Your task to perform on an android device: delete a single message in the gmail app Image 0: 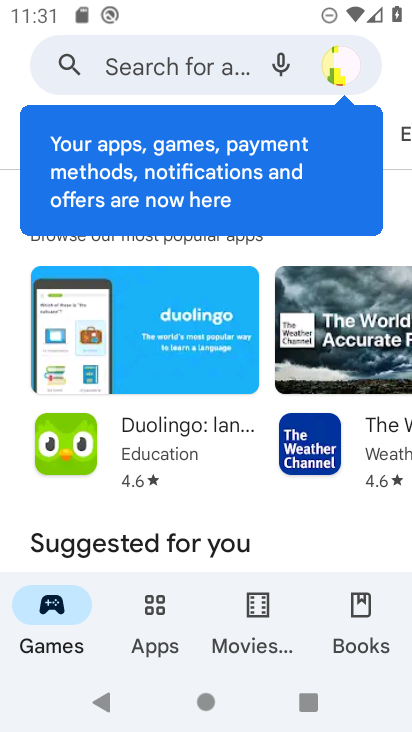
Step 0: press home button
Your task to perform on an android device: delete a single message in the gmail app Image 1: 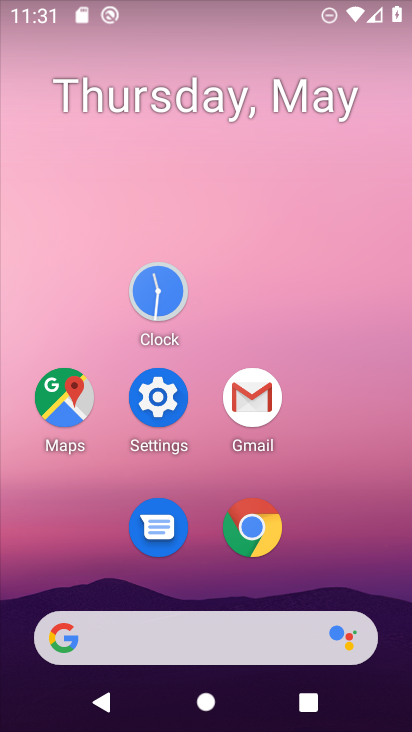
Step 1: click (265, 403)
Your task to perform on an android device: delete a single message in the gmail app Image 2: 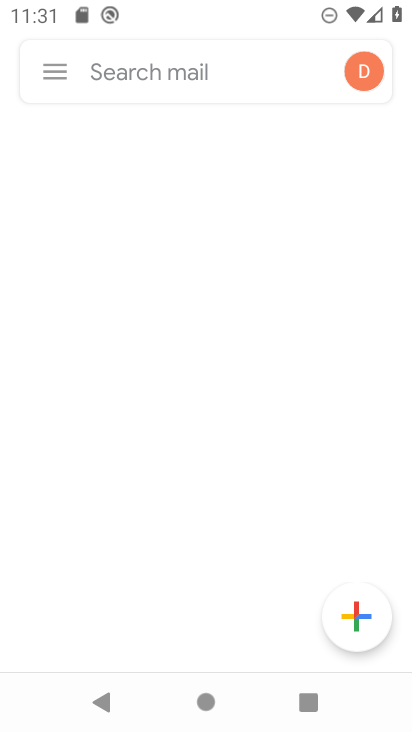
Step 2: task complete